Your task to perform on an android device: turn on improve location accuracy Image 0: 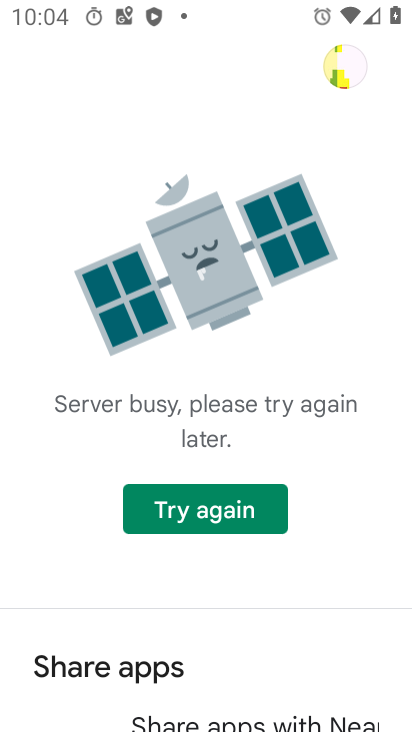
Step 0: task impossible